Your task to perform on an android device: Show me productivity apps on the Play Store Image 0: 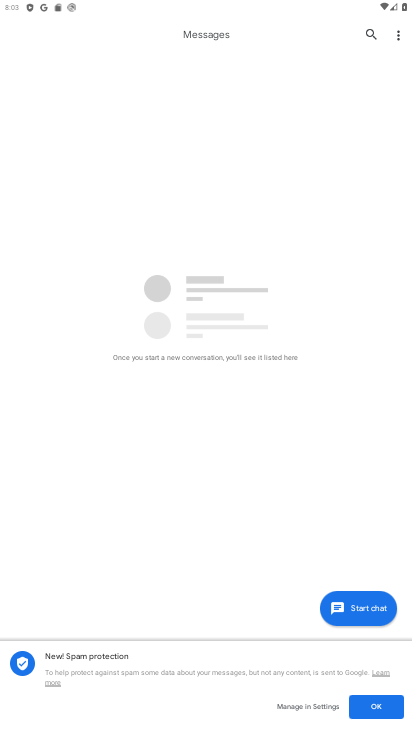
Step 0: press home button
Your task to perform on an android device: Show me productivity apps on the Play Store Image 1: 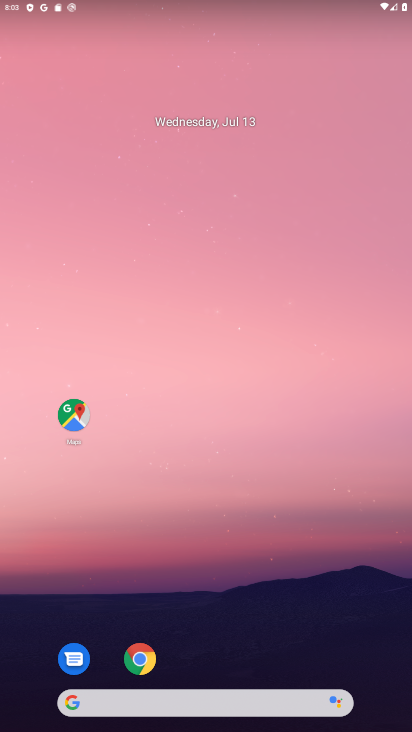
Step 1: drag from (270, 671) to (223, 233)
Your task to perform on an android device: Show me productivity apps on the Play Store Image 2: 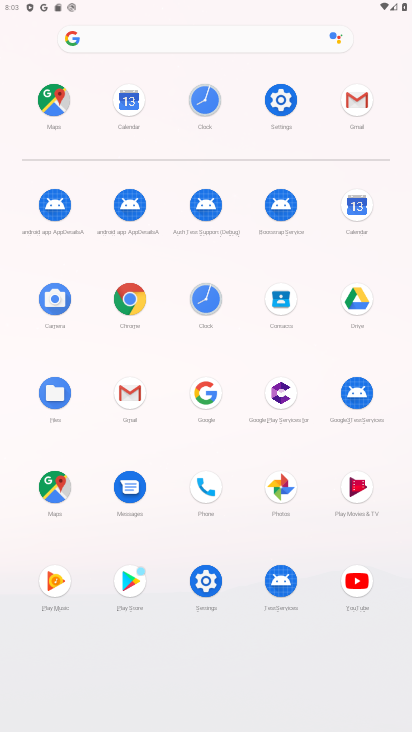
Step 2: click (280, 122)
Your task to perform on an android device: Show me productivity apps on the Play Store Image 3: 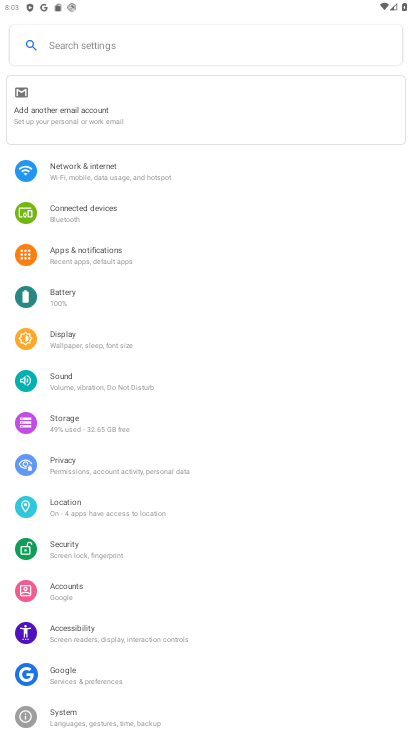
Step 3: press back button
Your task to perform on an android device: Show me productivity apps on the Play Store Image 4: 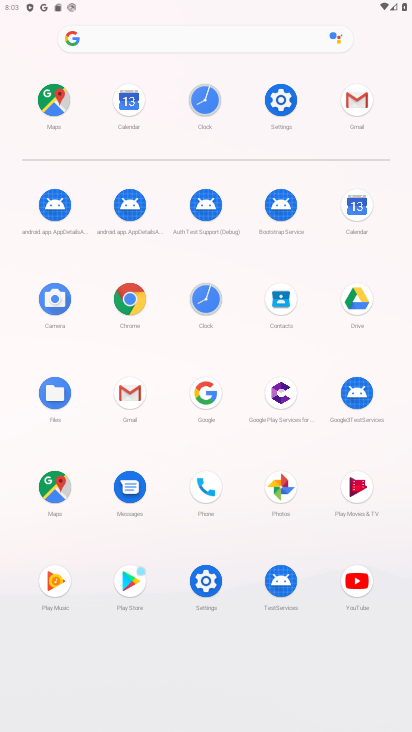
Step 4: click (127, 572)
Your task to perform on an android device: Show me productivity apps on the Play Store Image 5: 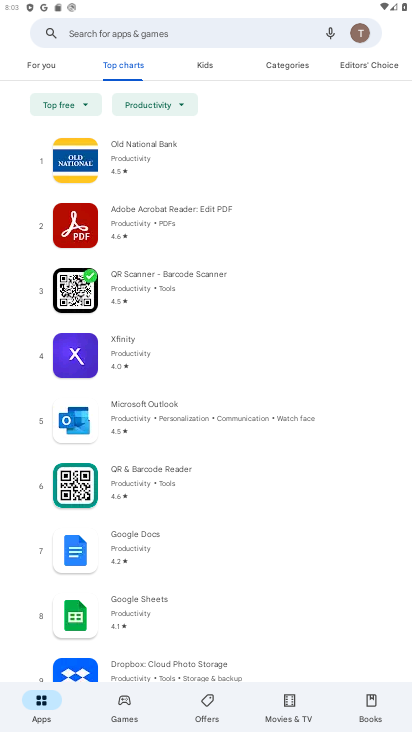
Step 5: task complete